Your task to perform on an android device: manage bookmarks in the chrome app Image 0: 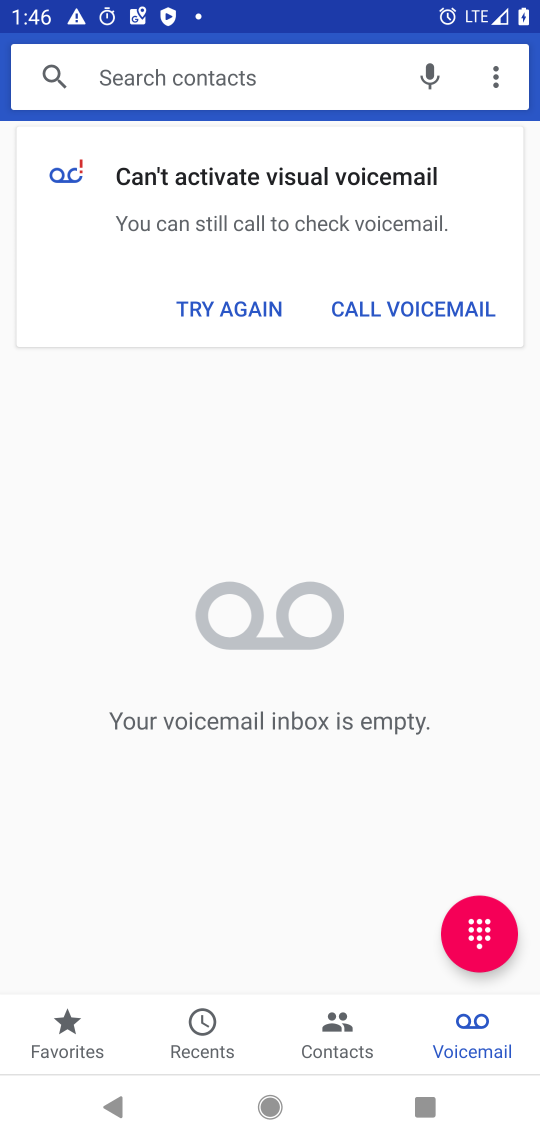
Step 0: press home button
Your task to perform on an android device: manage bookmarks in the chrome app Image 1: 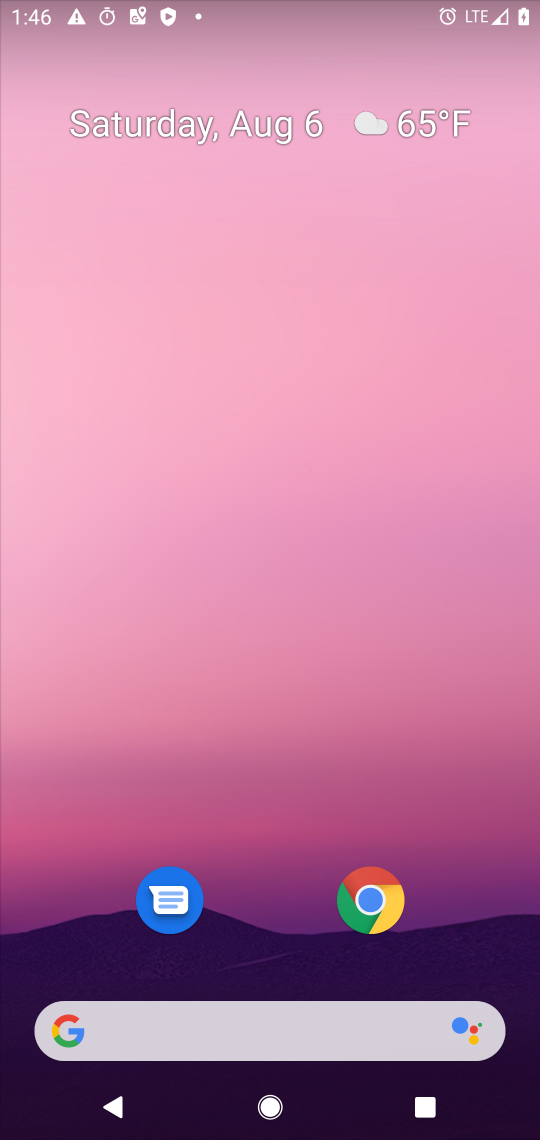
Step 1: click (375, 909)
Your task to perform on an android device: manage bookmarks in the chrome app Image 2: 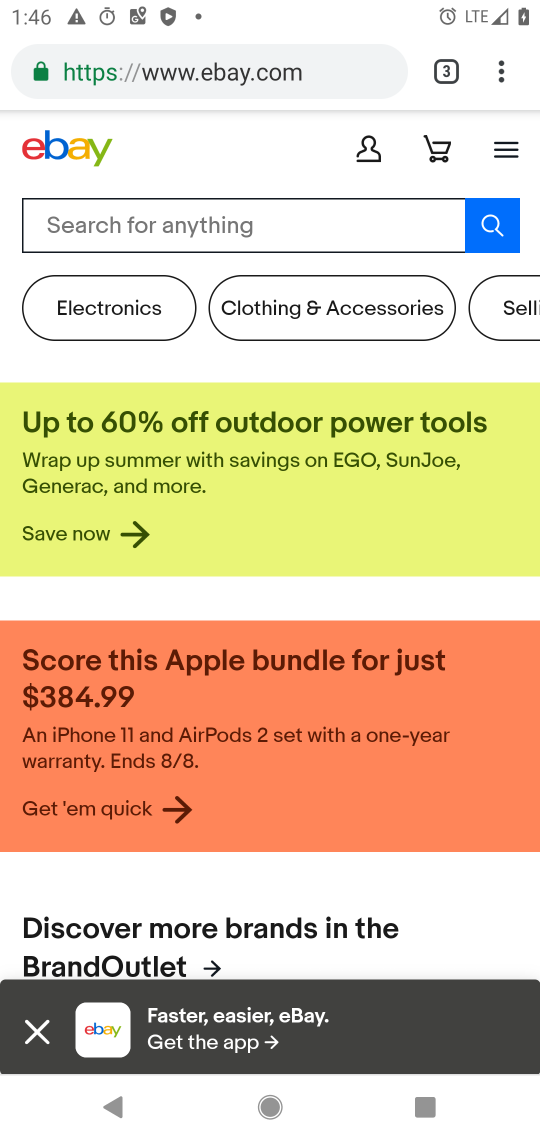
Step 2: click (497, 77)
Your task to perform on an android device: manage bookmarks in the chrome app Image 3: 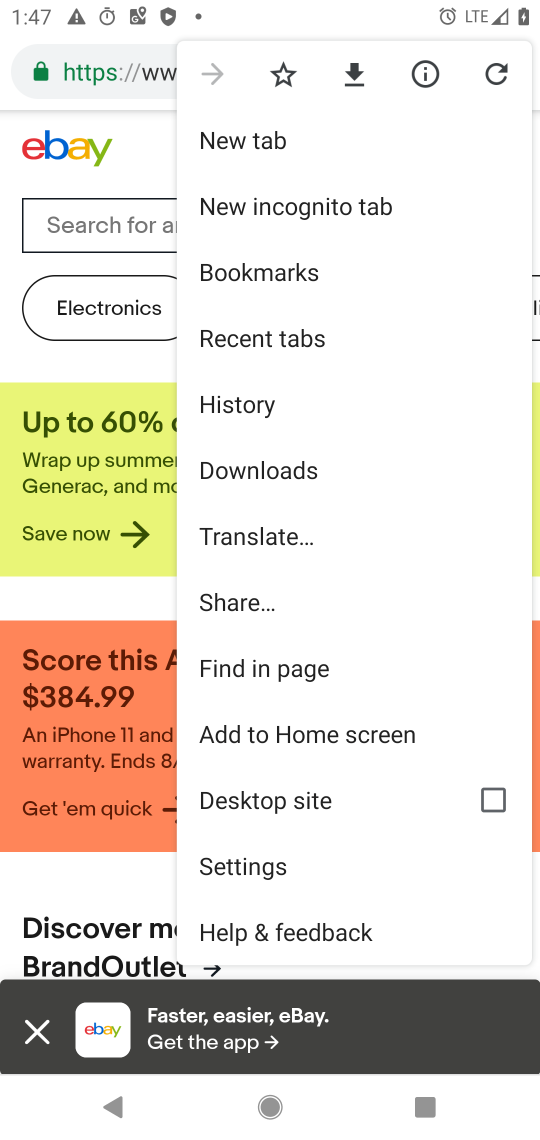
Step 3: click (277, 270)
Your task to perform on an android device: manage bookmarks in the chrome app Image 4: 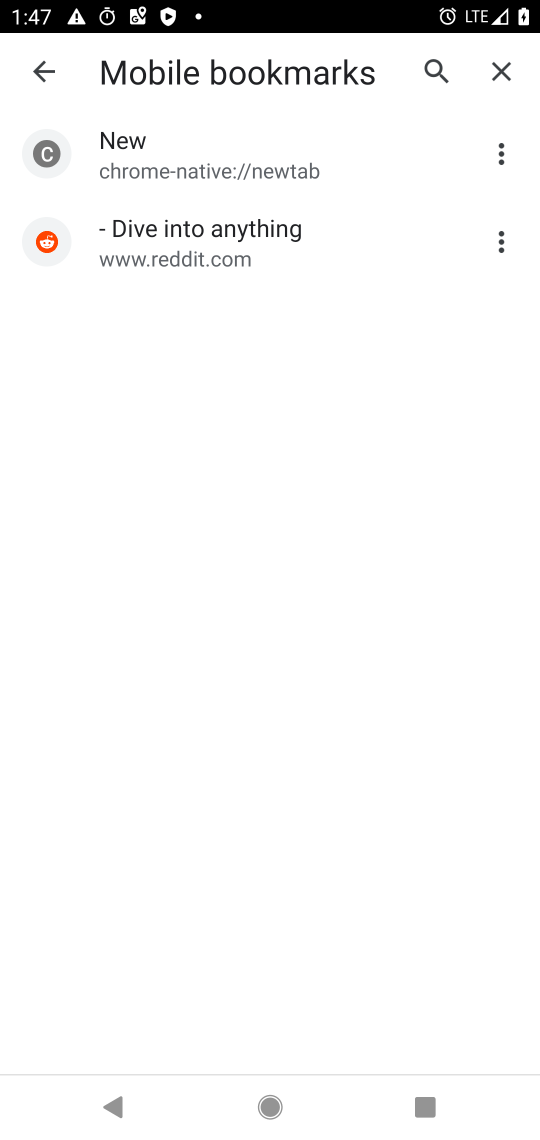
Step 4: click (174, 232)
Your task to perform on an android device: manage bookmarks in the chrome app Image 5: 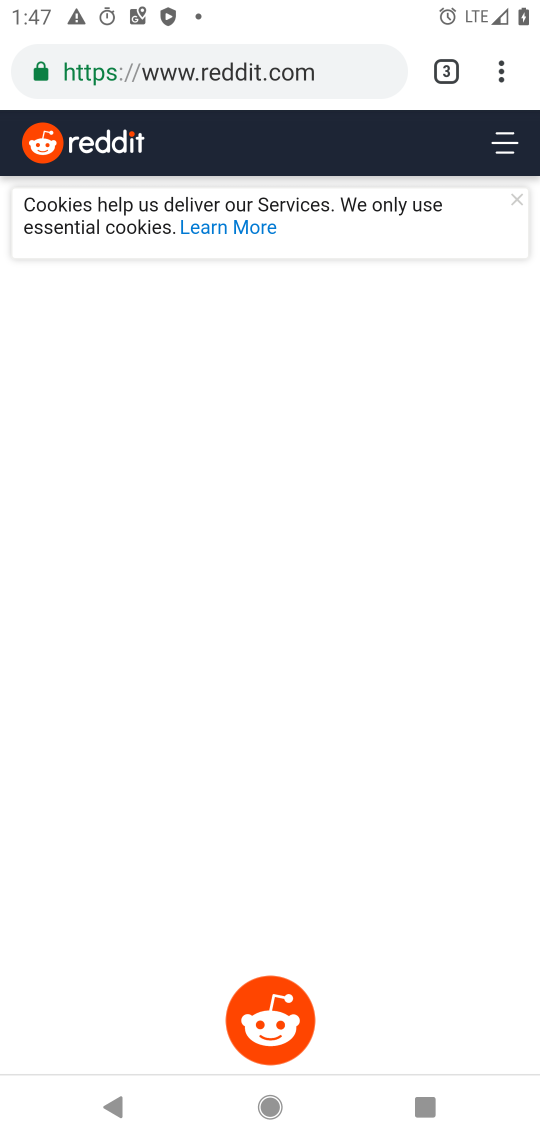
Step 5: task complete